Your task to perform on an android device: Open settings on Google Maps Image 0: 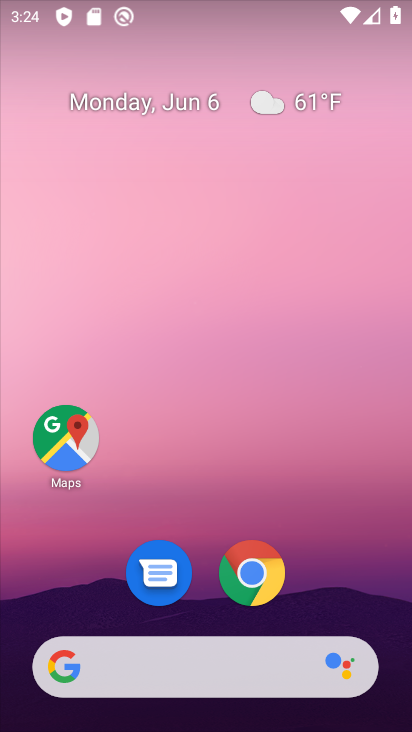
Step 0: drag from (120, 641) to (114, 228)
Your task to perform on an android device: Open settings on Google Maps Image 1: 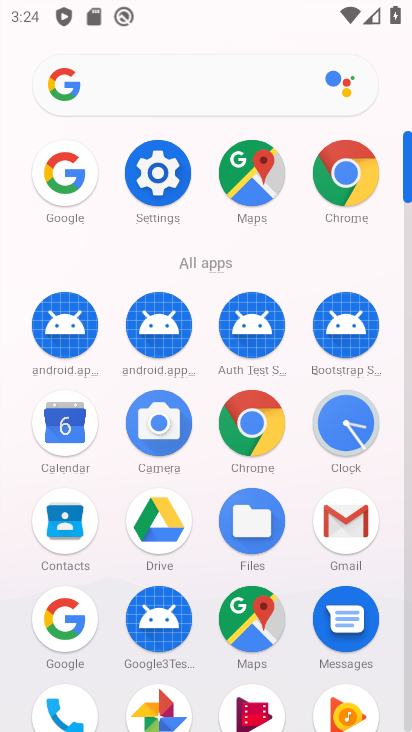
Step 1: click (255, 613)
Your task to perform on an android device: Open settings on Google Maps Image 2: 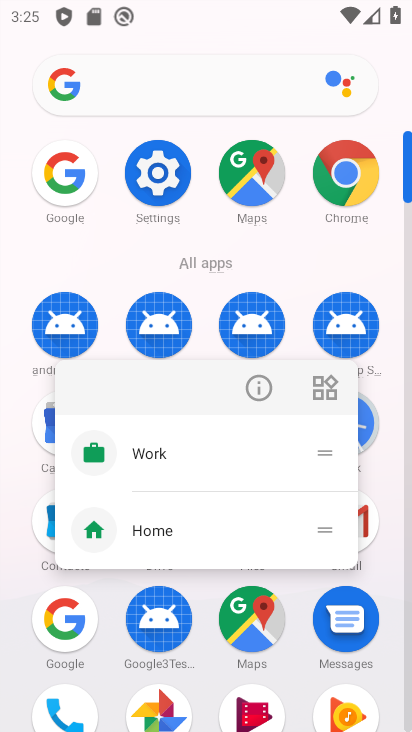
Step 2: click (241, 627)
Your task to perform on an android device: Open settings on Google Maps Image 3: 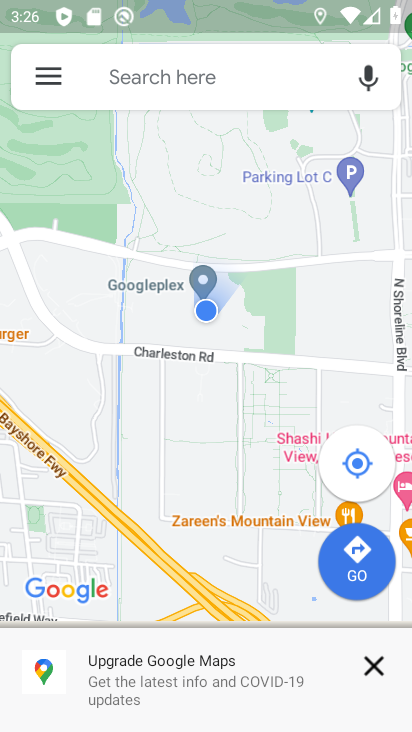
Step 3: click (50, 82)
Your task to perform on an android device: Open settings on Google Maps Image 4: 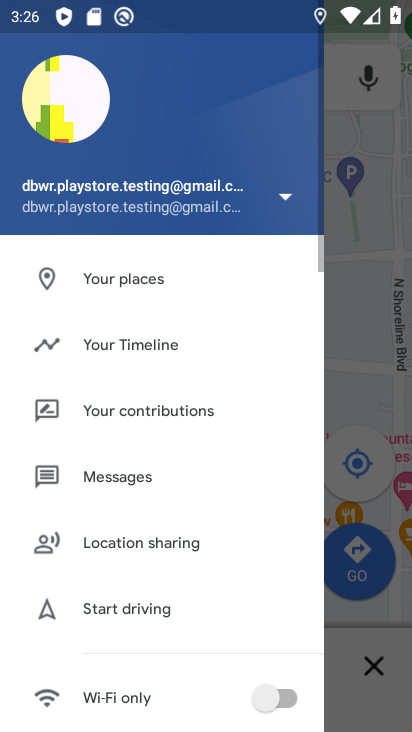
Step 4: drag from (103, 628) to (85, 314)
Your task to perform on an android device: Open settings on Google Maps Image 5: 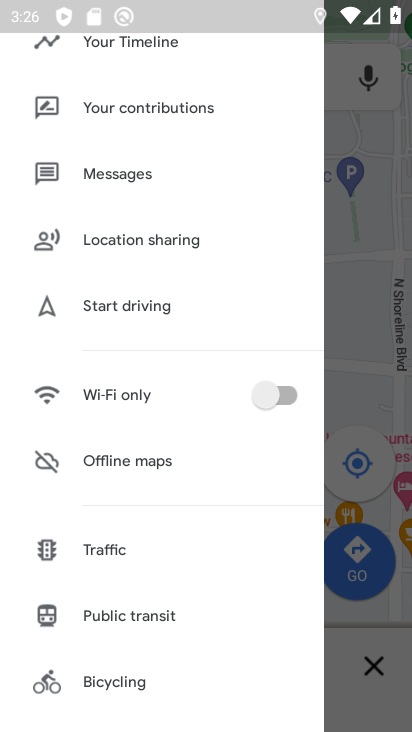
Step 5: drag from (107, 687) to (107, 399)
Your task to perform on an android device: Open settings on Google Maps Image 6: 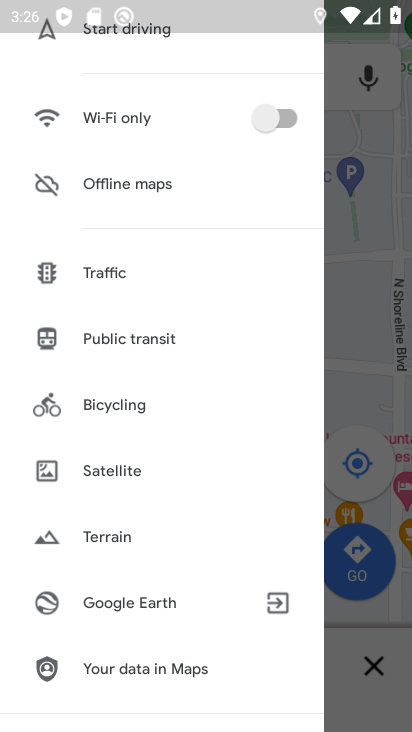
Step 6: drag from (95, 675) to (120, 440)
Your task to perform on an android device: Open settings on Google Maps Image 7: 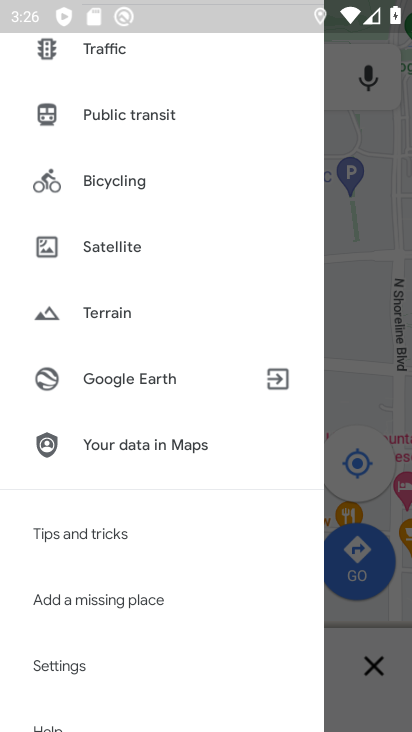
Step 7: click (49, 675)
Your task to perform on an android device: Open settings on Google Maps Image 8: 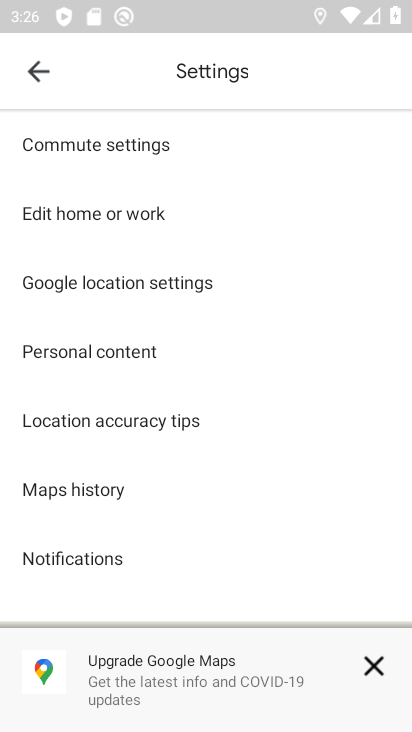
Step 8: task complete